Your task to perform on an android device: toggle notifications settings in the gmail app Image 0: 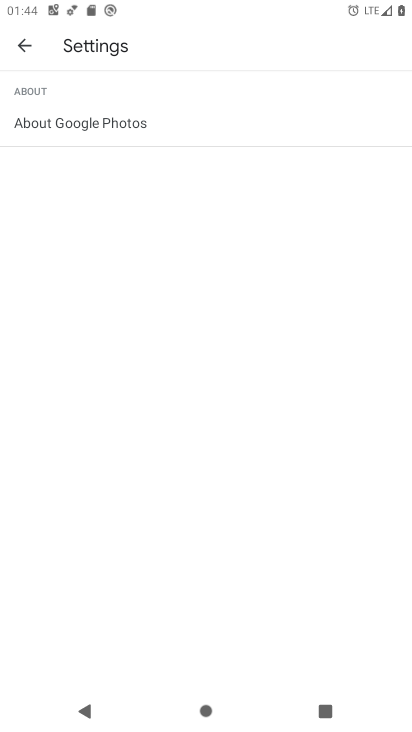
Step 0: press home button
Your task to perform on an android device: toggle notifications settings in the gmail app Image 1: 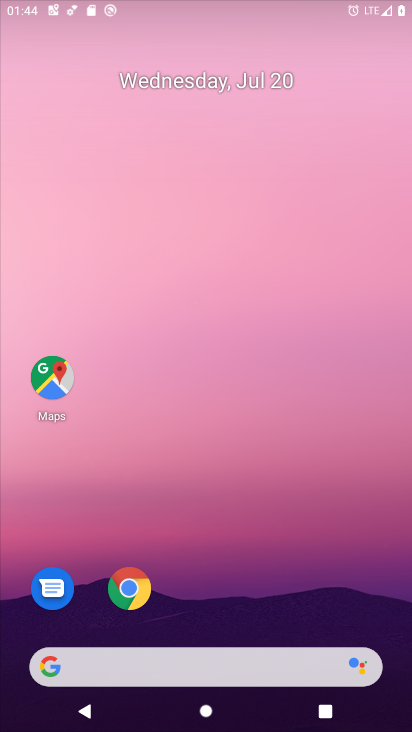
Step 1: drag from (254, 603) to (245, 189)
Your task to perform on an android device: toggle notifications settings in the gmail app Image 2: 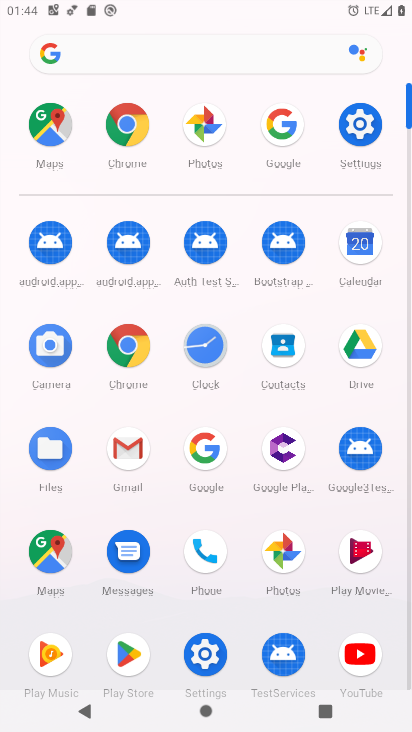
Step 2: click (125, 457)
Your task to perform on an android device: toggle notifications settings in the gmail app Image 3: 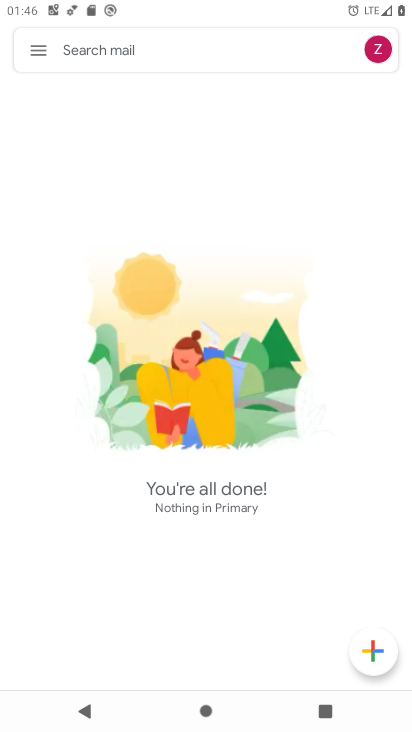
Step 3: click (45, 53)
Your task to perform on an android device: toggle notifications settings in the gmail app Image 4: 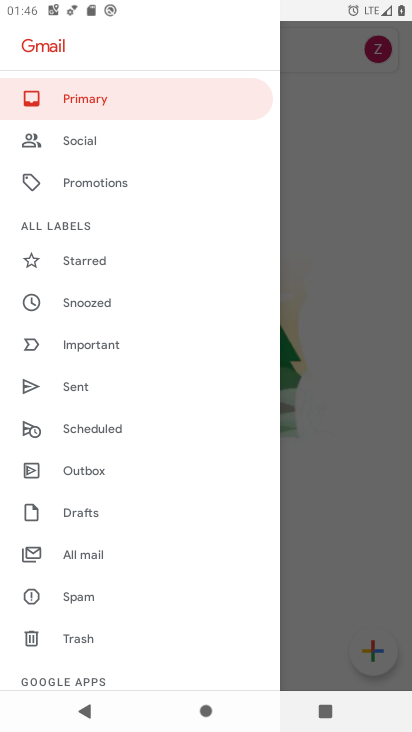
Step 4: drag from (101, 612) to (130, 275)
Your task to perform on an android device: toggle notifications settings in the gmail app Image 5: 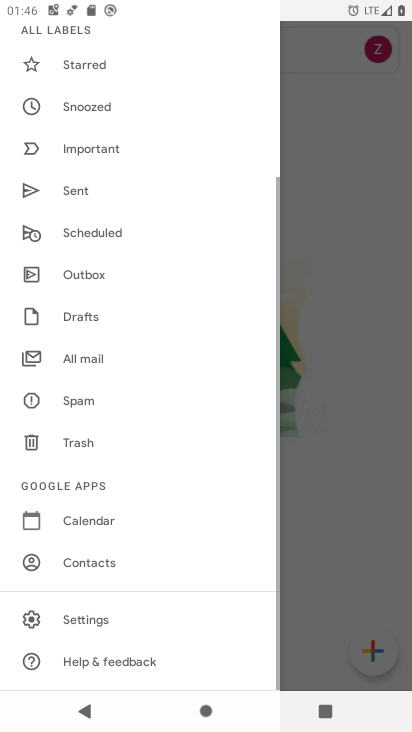
Step 5: click (117, 609)
Your task to perform on an android device: toggle notifications settings in the gmail app Image 6: 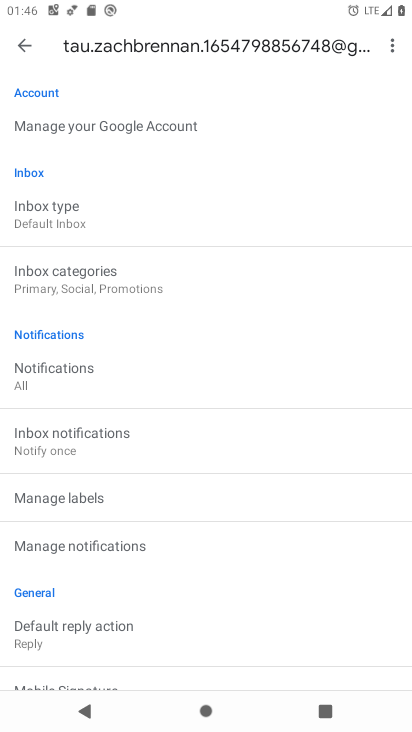
Step 6: click (61, 371)
Your task to perform on an android device: toggle notifications settings in the gmail app Image 7: 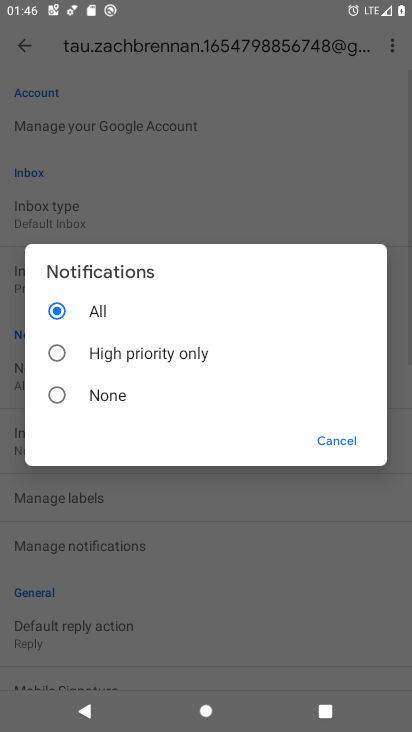
Step 7: click (96, 390)
Your task to perform on an android device: toggle notifications settings in the gmail app Image 8: 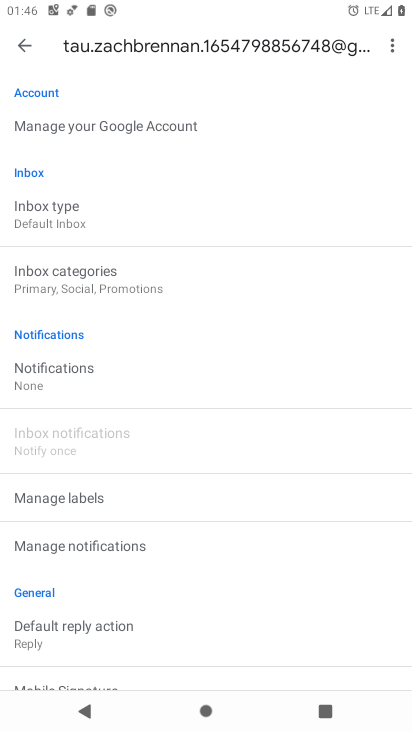
Step 8: task complete